Your task to perform on an android device: show emergency info Image 0: 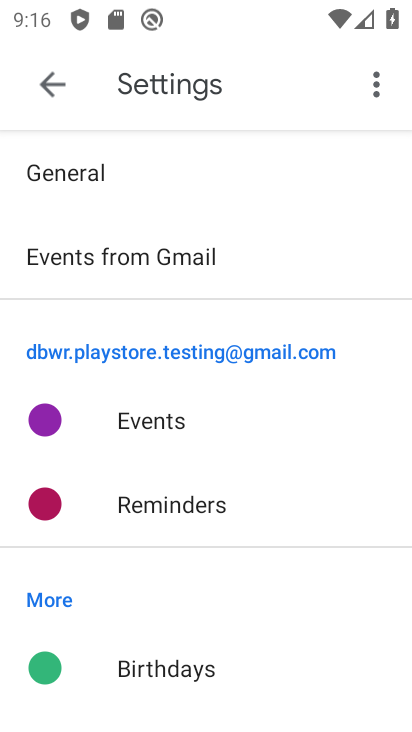
Step 0: press home button
Your task to perform on an android device: show emergency info Image 1: 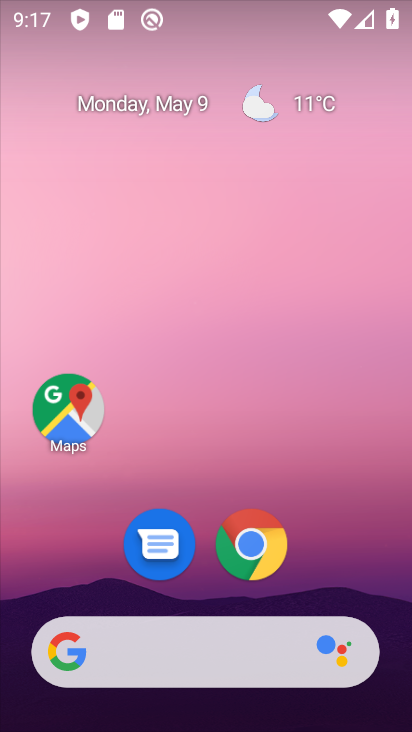
Step 1: drag from (394, 587) to (379, 64)
Your task to perform on an android device: show emergency info Image 2: 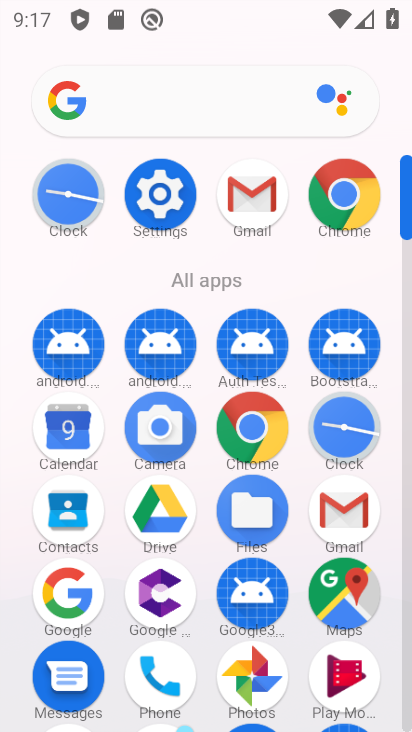
Step 2: click (147, 201)
Your task to perform on an android device: show emergency info Image 3: 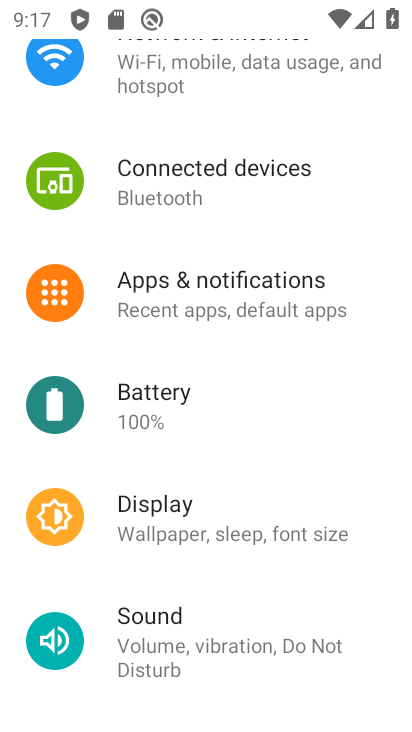
Step 3: drag from (373, 592) to (378, 326)
Your task to perform on an android device: show emergency info Image 4: 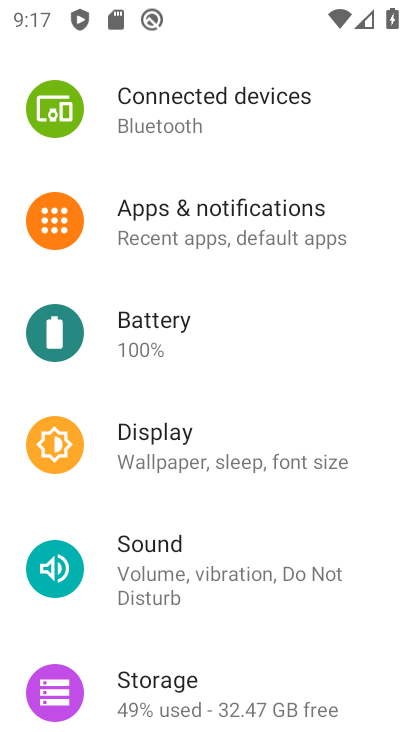
Step 4: drag from (356, 690) to (356, 520)
Your task to perform on an android device: show emergency info Image 5: 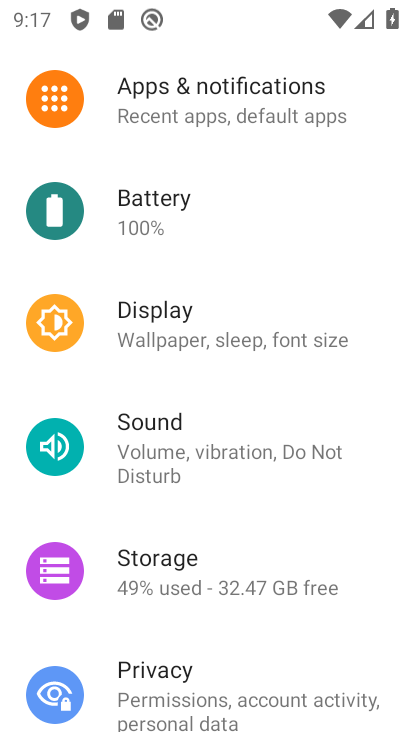
Step 5: drag from (375, 703) to (383, 356)
Your task to perform on an android device: show emergency info Image 6: 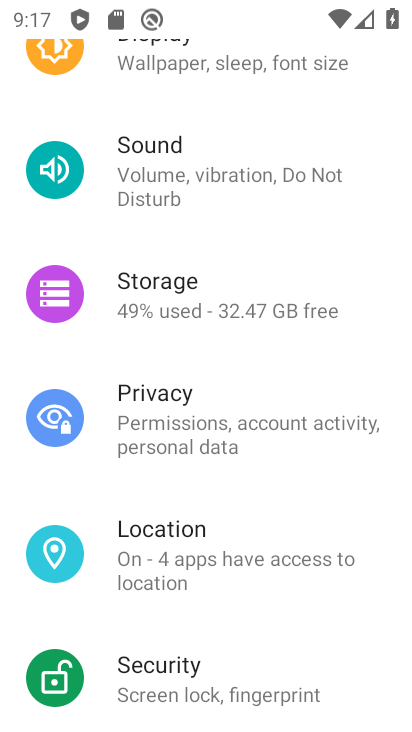
Step 6: drag from (374, 631) to (366, 390)
Your task to perform on an android device: show emergency info Image 7: 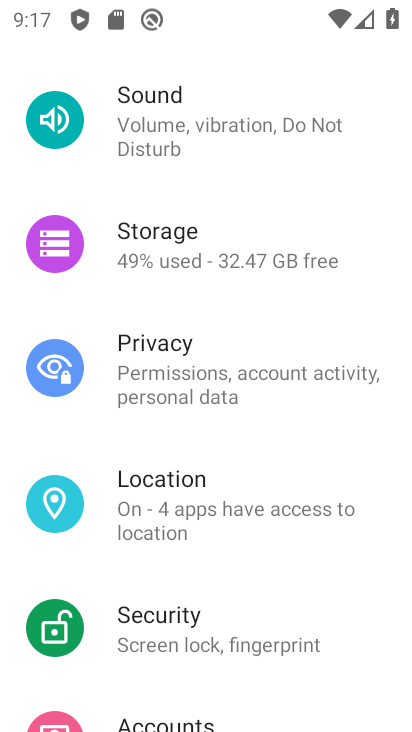
Step 7: drag from (368, 667) to (368, 321)
Your task to perform on an android device: show emergency info Image 8: 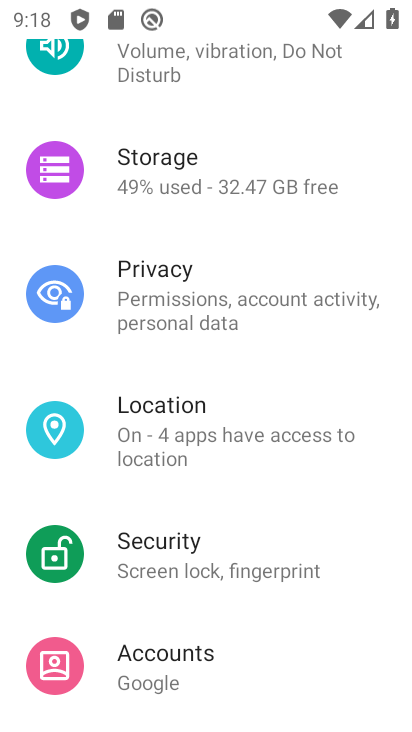
Step 8: drag from (368, 677) to (382, 422)
Your task to perform on an android device: show emergency info Image 9: 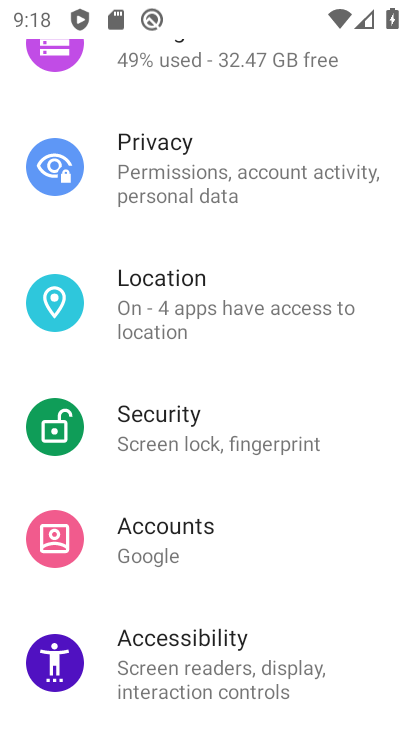
Step 9: drag from (363, 634) to (337, 351)
Your task to perform on an android device: show emergency info Image 10: 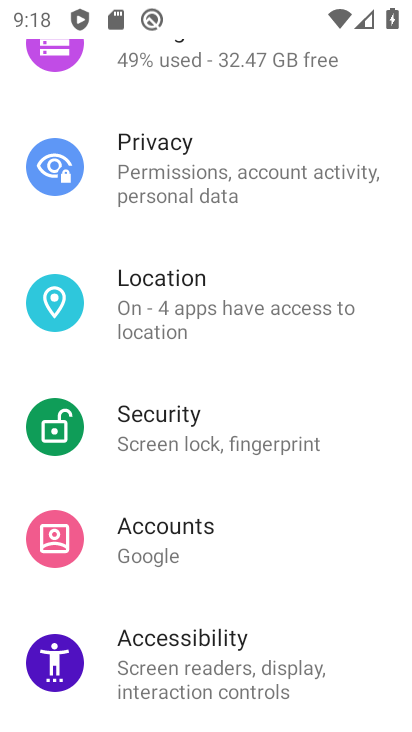
Step 10: drag from (385, 495) to (359, 256)
Your task to perform on an android device: show emergency info Image 11: 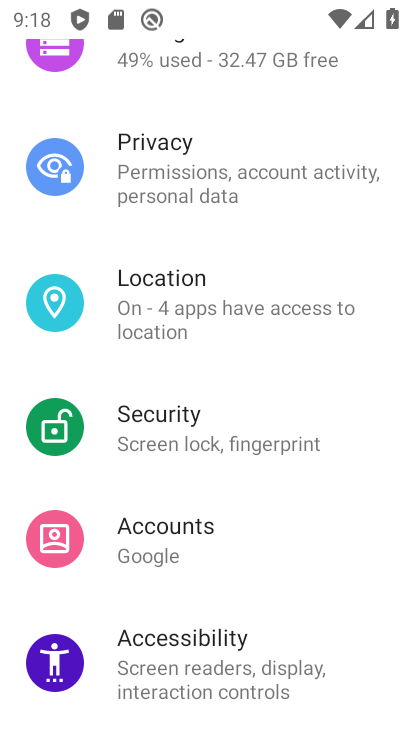
Step 11: drag from (372, 684) to (353, 352)
Your task to perform on an android device: show emergency info Image 12: 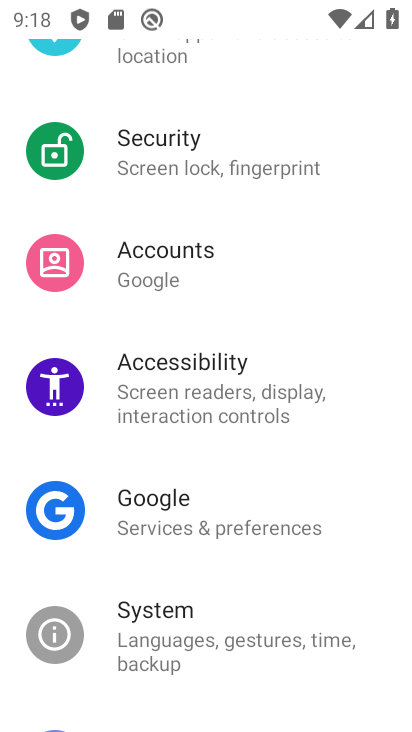
Step 12: drag from (371, 609) to (358, 239)
Your task to perform on an android device: show emergency info Image 13: 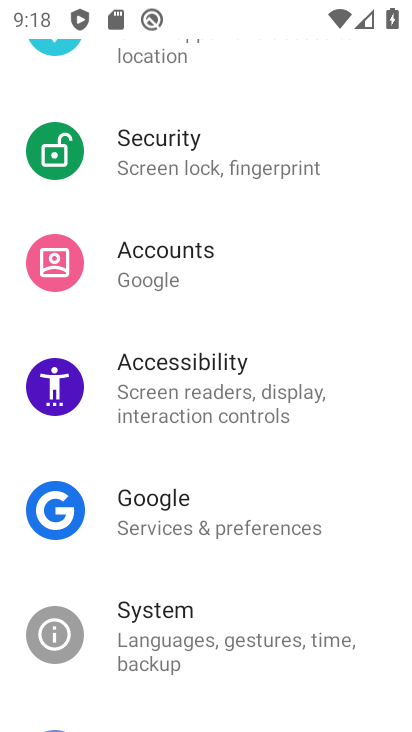
Step 13: drag from (383, 680) to (379, 168)
Your task to perform on an android device: show emergency info Image 14: 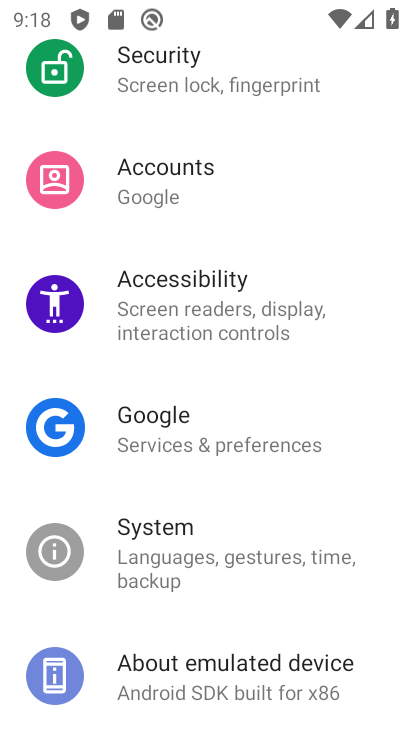
Step 14: click (200, 674)
Your task to perform on an android device: show emergency info Image 15: 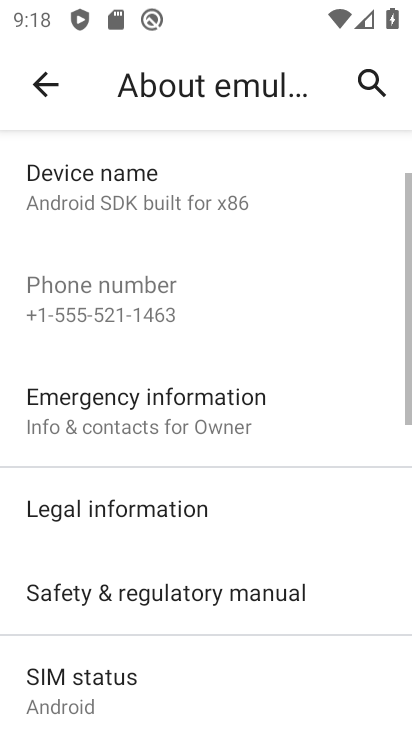
Step 15: drag from (338, 662) to (344, 333)
Your task to perform on an android device: show emergency info Image 16: 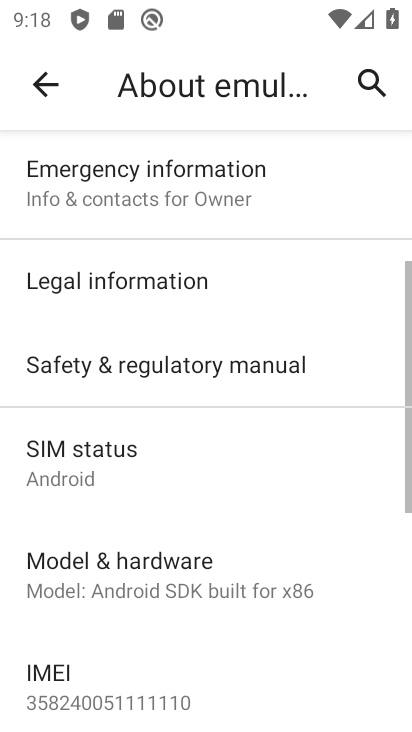
Step 16: click (174, 170)
Your task to perform on an android device: show emergency info Image 17: 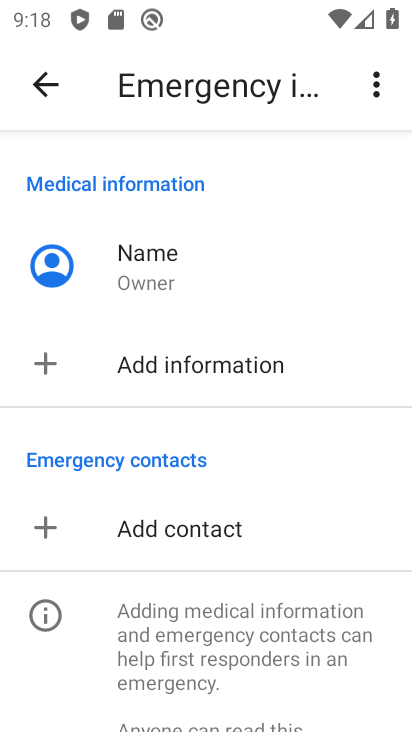
Step 17: task complete